Your task to perform on an android device: toggle priority inbox in the gmail app Image 0: 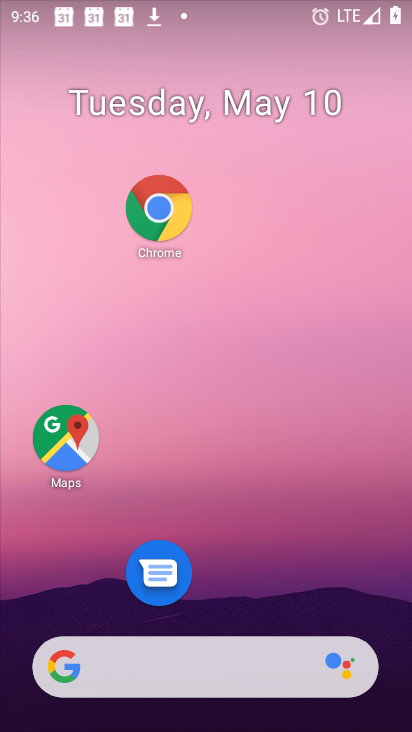
Step 0: drag from (241, 692) to (329, 154)
Your task to perform on an android device: toggle priority inbox in the gmail app Image 1: 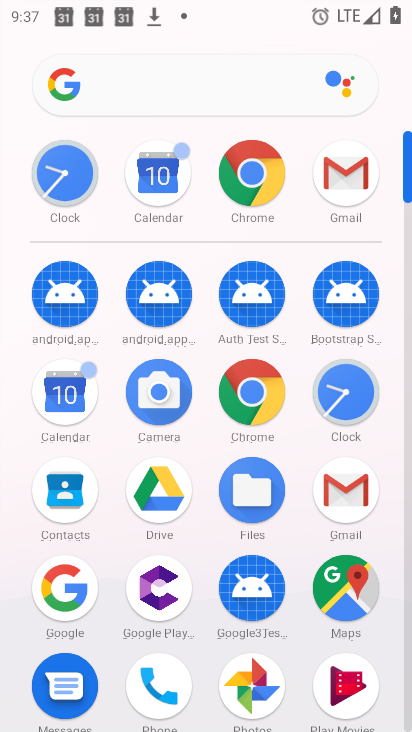
Step 1: click (331, 502)
Your task to perform on an android device: toggle priority inbox in the gmail app Image 2: 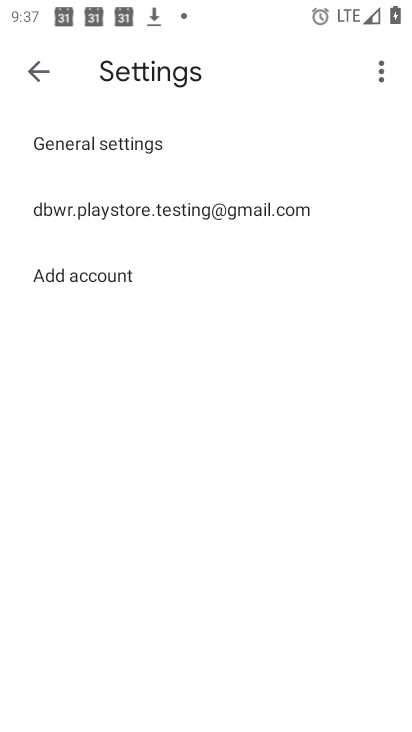
Step 2: click (105, 196)
Your task to perform on an android device: toggle priority inbox in the gmail app Image 3: 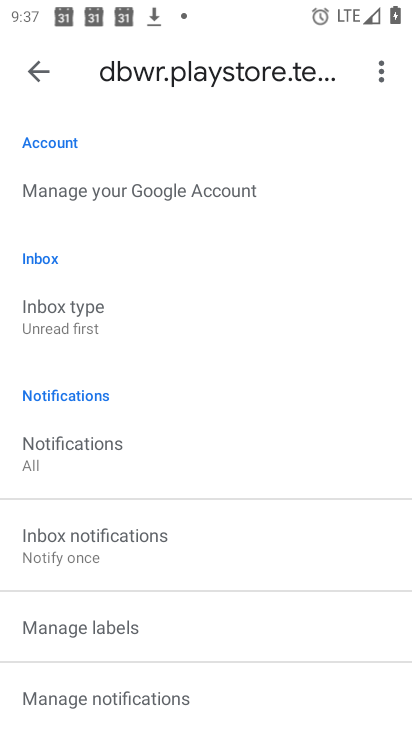
Step 3: click (122, 307)
Your task to perform on an android device: toggle priority inbox in the gmail app Image 4: 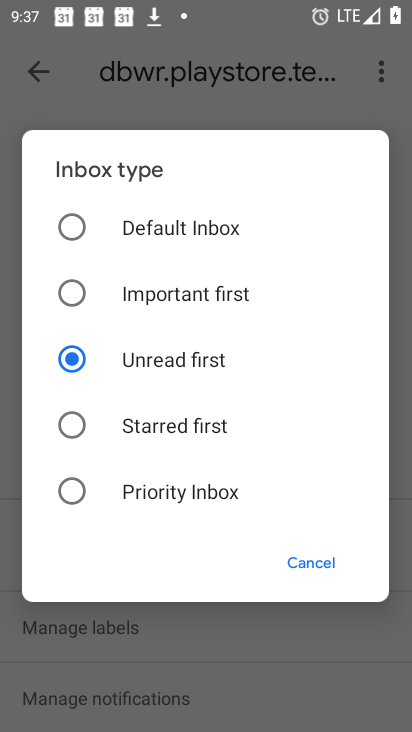
Step 4: click (164, 499)
Your task to perform on an android device: toggle priority inbox in the gmail app Image 5: 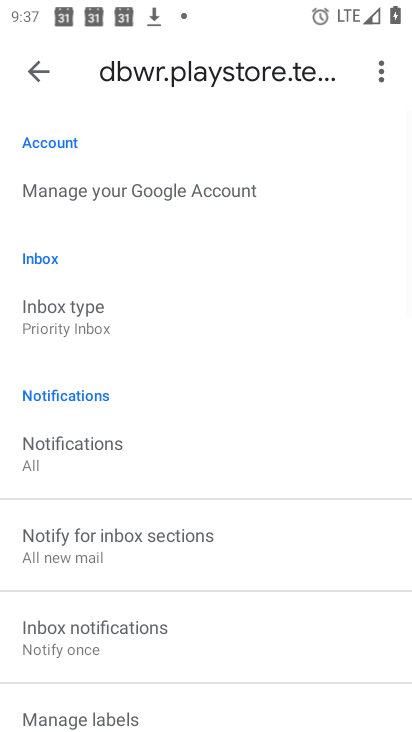
Step 5: task complete